Your task to perform on an android device: What's a good restaurant in Philadelphia? Image 0: 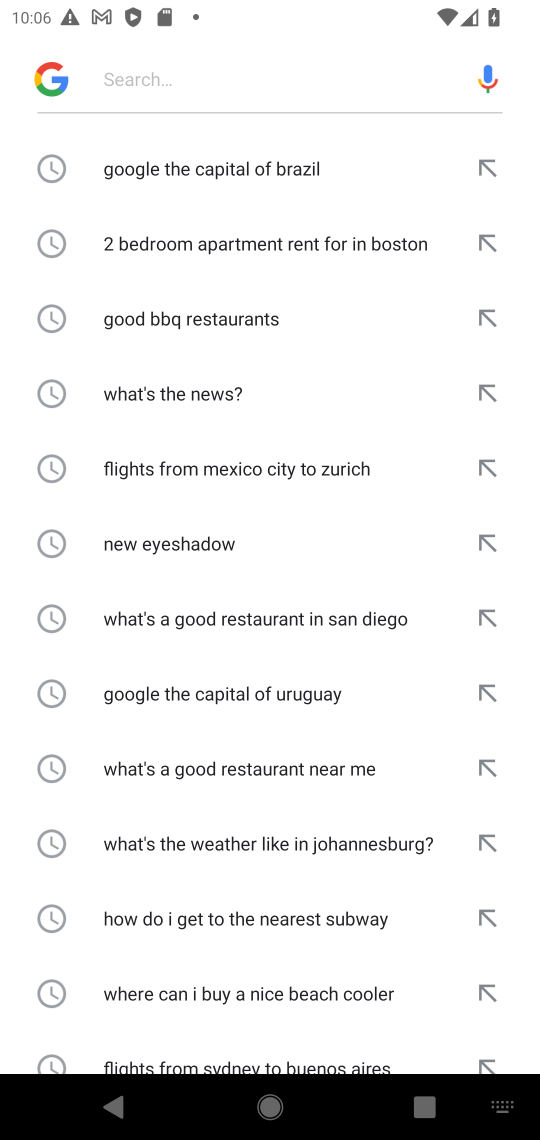
Step 0: click (211, 1129)
Your task to perform on an android device: What's a good restaurant in Philadelphia? Image 1: 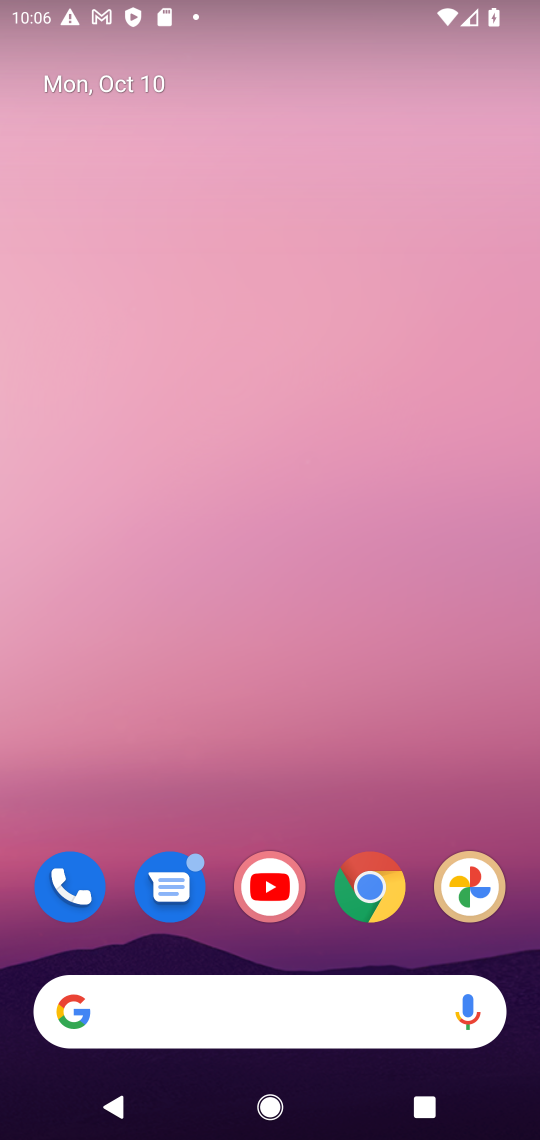
Step 1: drag from (224, 953) to (246, 512)
Your task to perform on an android device: What's a good restaurant in Philadelphia? Image 2: 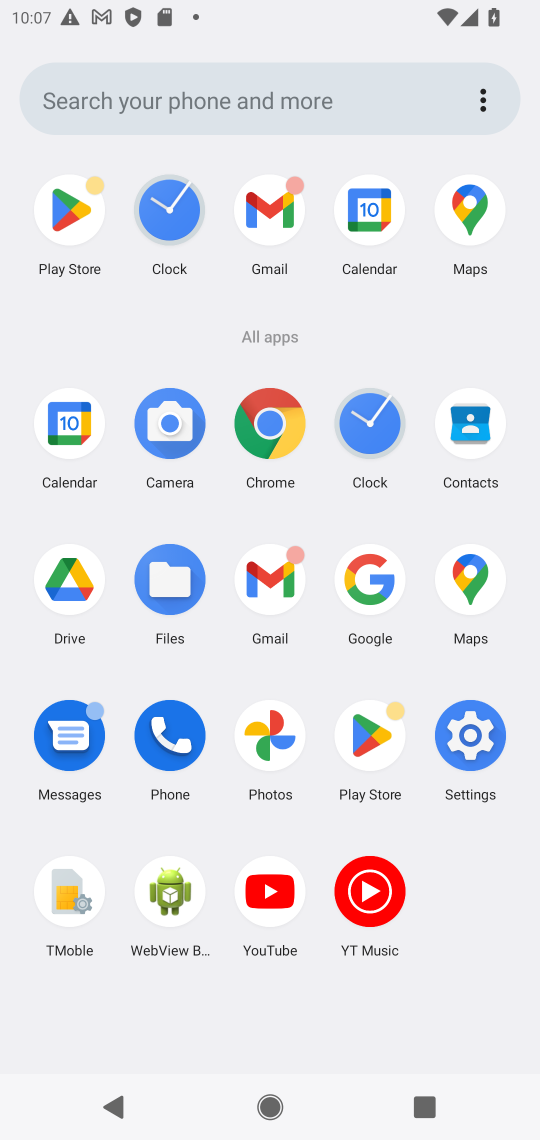
Step 2: click (375, 579)
Your task to perform on an android device: What's a good restaurant in Philadelphia? Image 3: 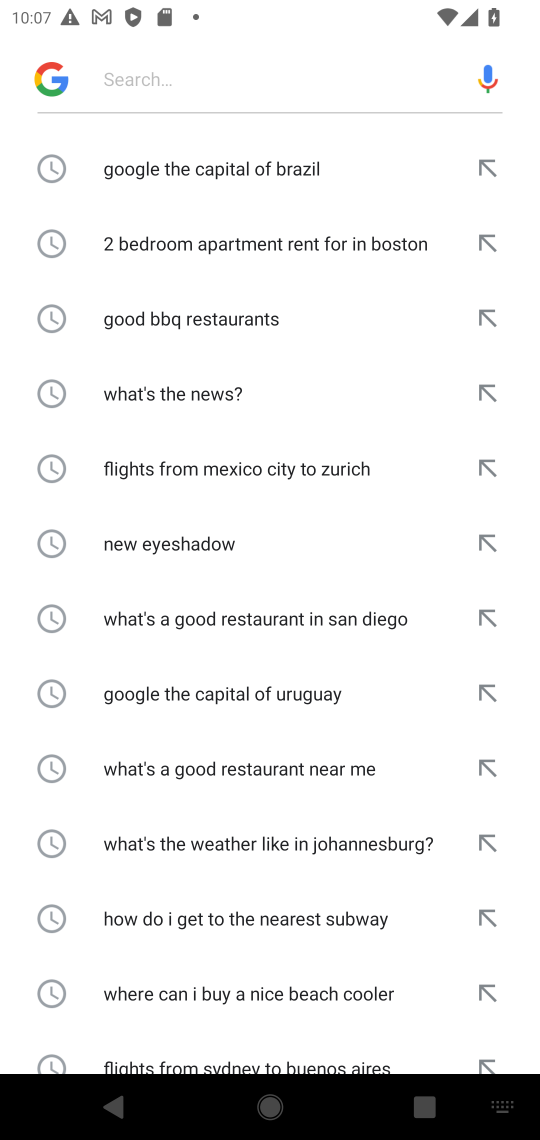
Step 3: click (243, 77)
Your task to perform on an android device: What's a good restaurant in Philadelphia? Image 4: 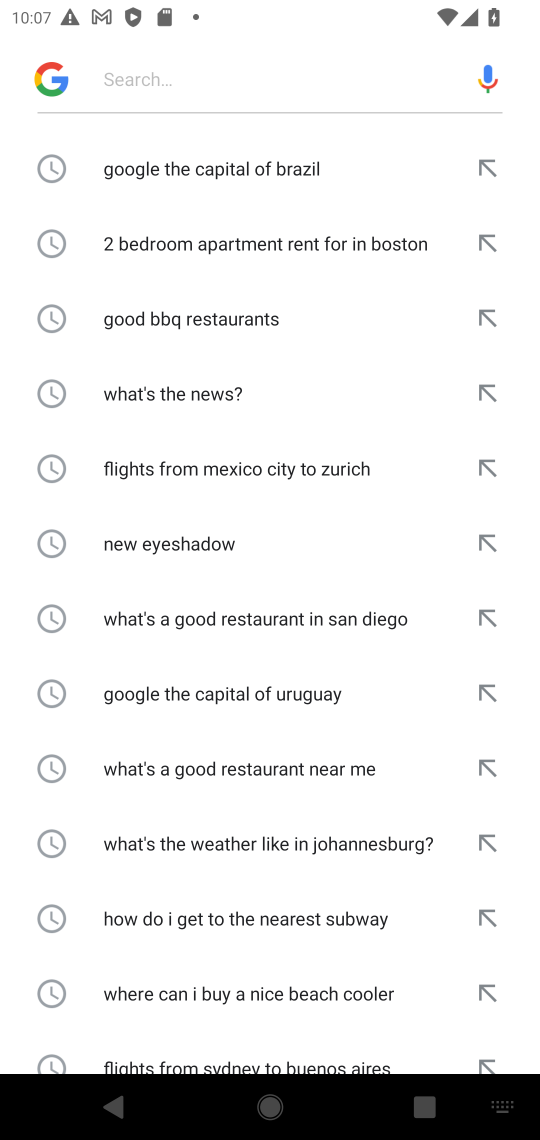
Step 4: type "What's a good restaurant in Philadelphia "
Your task to perform on an android device: What's a good restaurant in Philadelphia? Image 5: 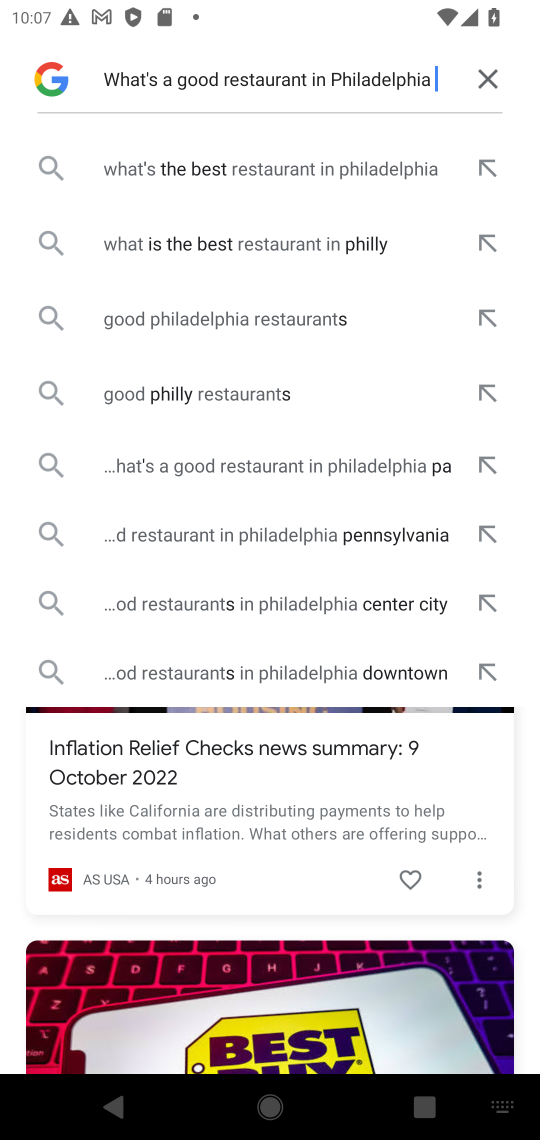
Step 5: click (211, 173)
Your task to perform on an android device: What's a good restaurant in Philadelphia? Image 6: 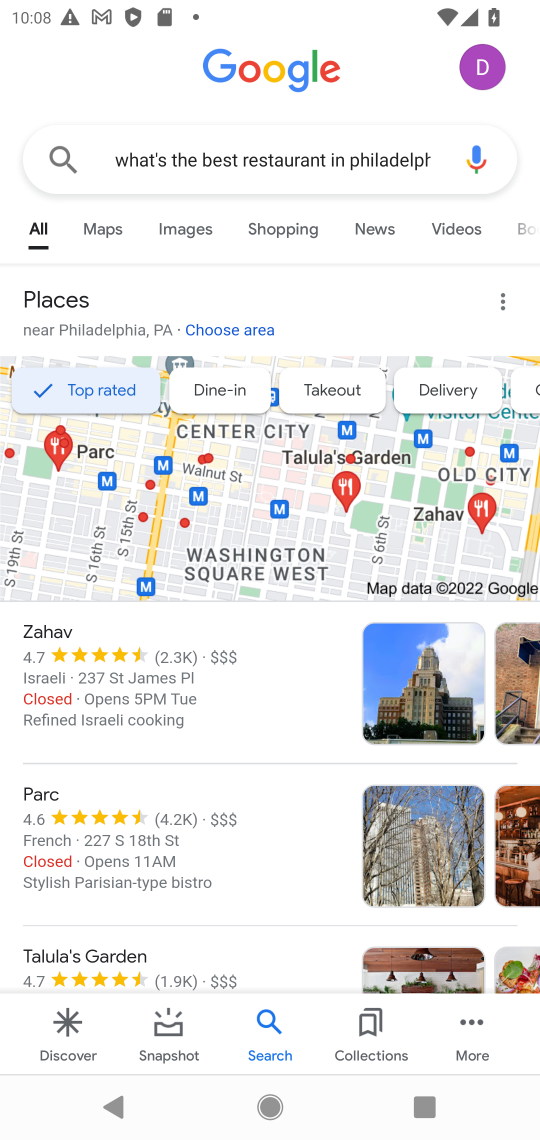
Step 6: task complete